Your task to perform on an android device: toggle show notifications on the lock screen Image 0: 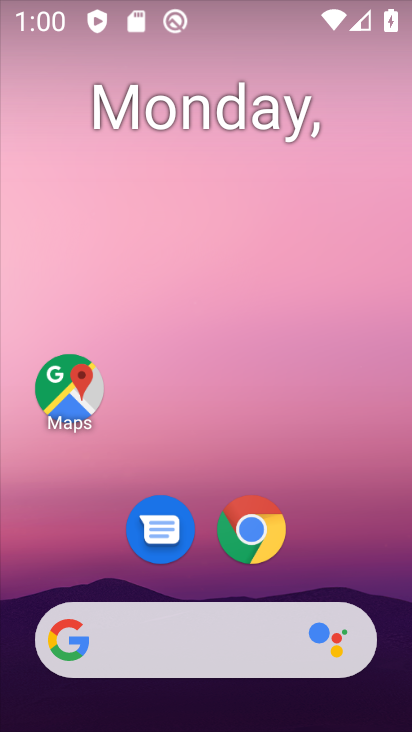
Step 0: drag from (355, 516) to (370, 84)
Your task to perform on an android device: toggle show notifications on the lock screen Image 1: 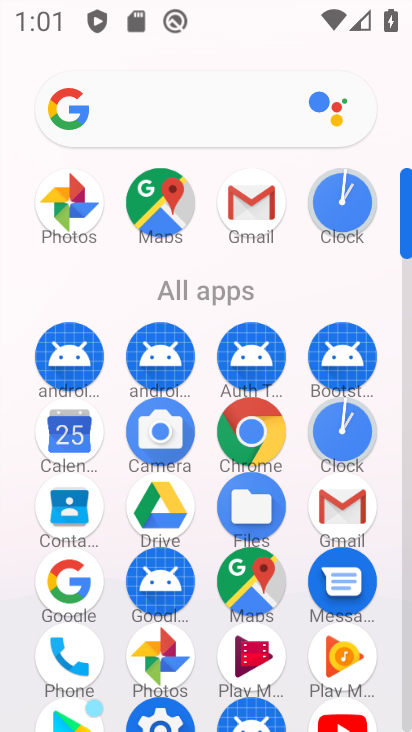
Step 1: drag from (385, 548) to (389, 130)
Your task to perform on an android device: toggle show notifications on the lock screen Image 2: 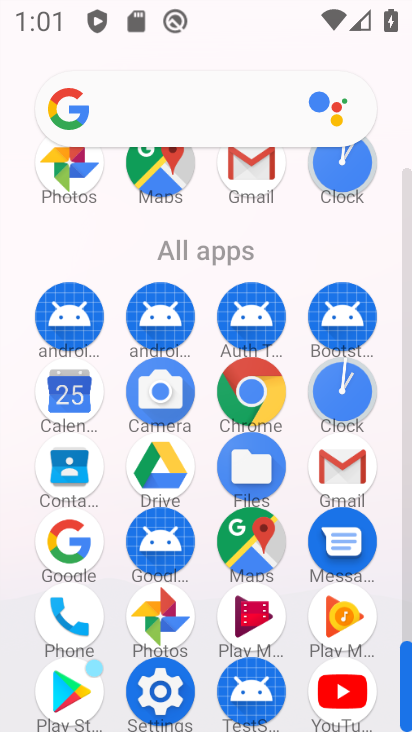
Step 2: click (168, 681)
Your task to perform on an android device: toggle show notifications on the lock screen Image 3: 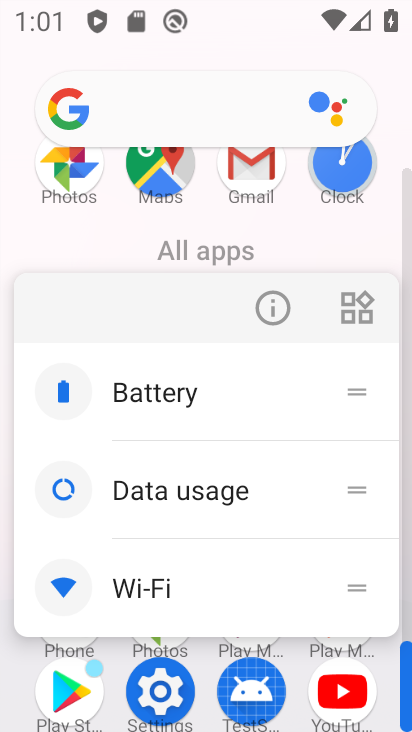
Step 3: click (169, 676)
Your task to perform on an android device: toggle show notifications on the lock screen Image 4: 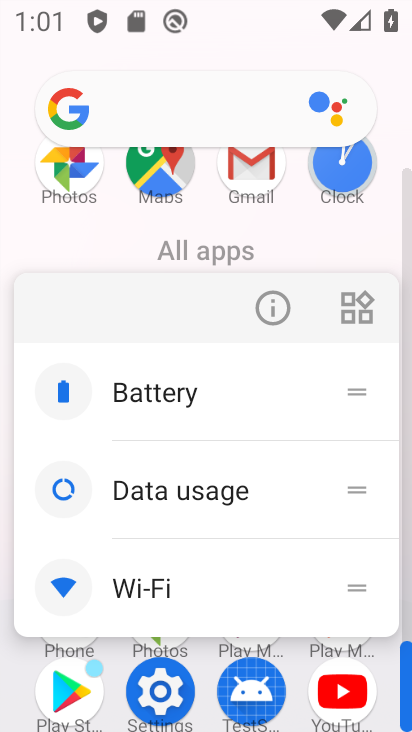
Step 4: click (173, 687)
Your task to perform on an android device: toggle show notifications on the lock screen Image 5: 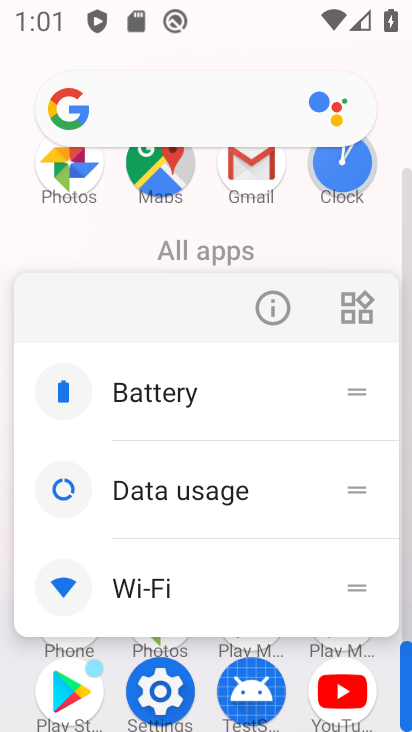
Step 5: click (173, 685)
Your task to perform on an android device: toggle show notifications on the lock screen Image 6: 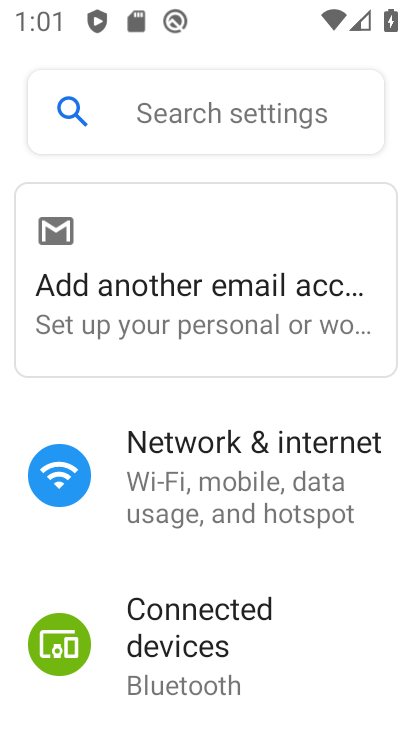
Step 6: drag from (194, 584) to (195, 307)
Your task to perform on an android device: toggle show notifications on the lock screen Image 7: 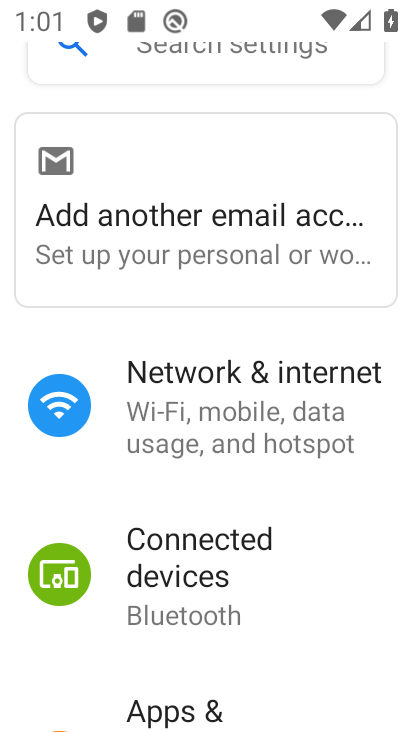
Step 7: drag from (228, 563) to (252, 284)
Your task to perform on an android device: toggle show notifications on the lock screen Image 8: 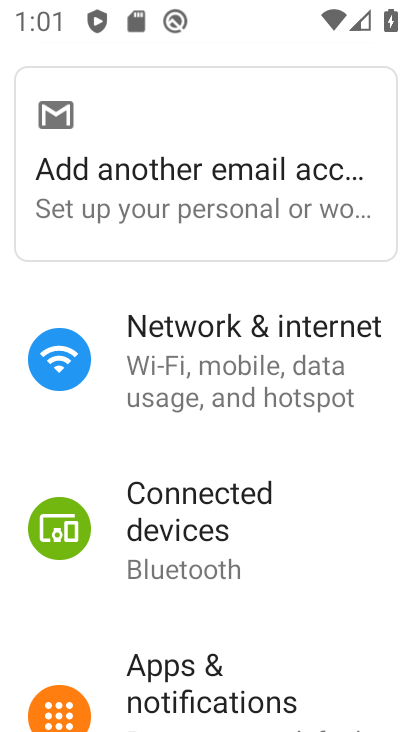
Step 8: drag from (229, 598) to (228, 235)
Your task to perform on an android device: toggle show notifications on the lock screen Image 9: 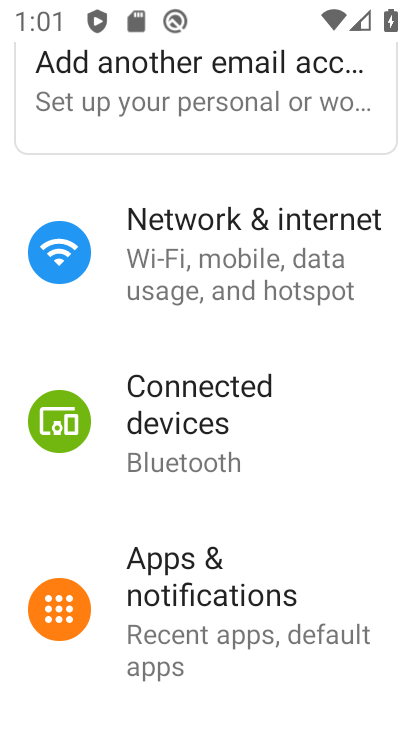
Step 9: click (210, 628)
Your task to perform on an android device: toggle show notifications on the lock screen Image 10: 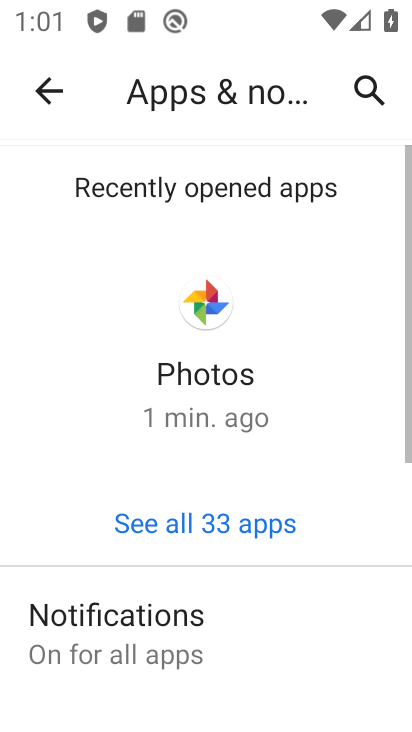
Step 10: drag from (158, 630) to (187, 295)
Your task to perform on an android device: toggle show notifications on the lock screen Image 11: 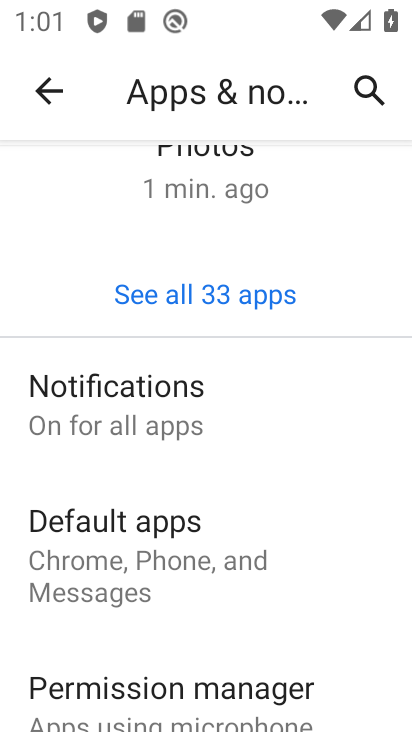
Step 11: click (125, 409)
Your task to perform on an android device: toggle show notifications on the lock screen Image 12: 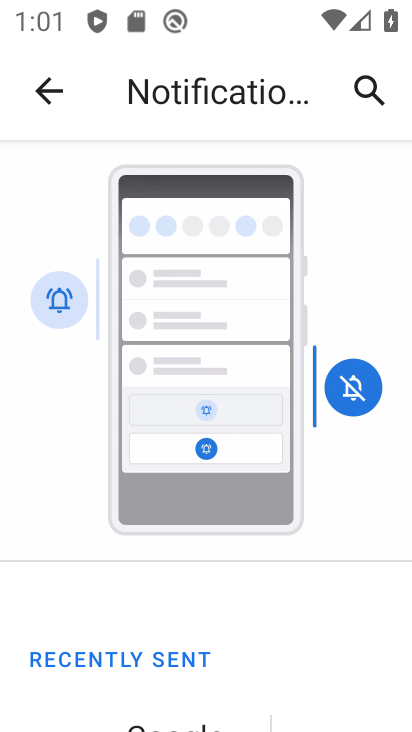
Step 12: drag from (194, 611) to (168, 254)
Your task to perform on an android device: toggle show notifications on the lock screen Image 13: 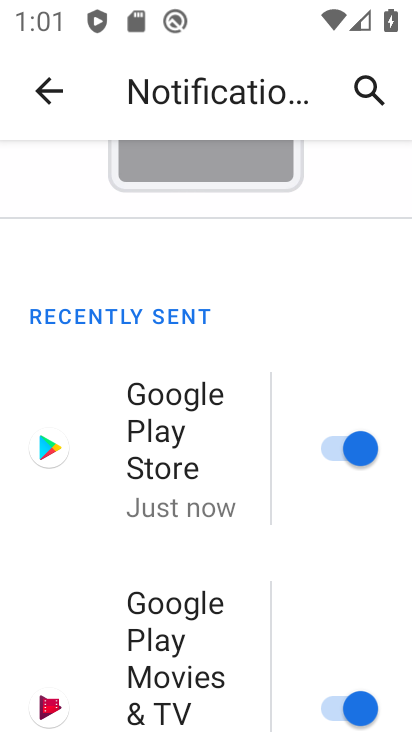
Step 13: drag from (138, 569) to (126, 189)
Your task to perform on an android device: toggle show notifications on the lock screen Image 14: 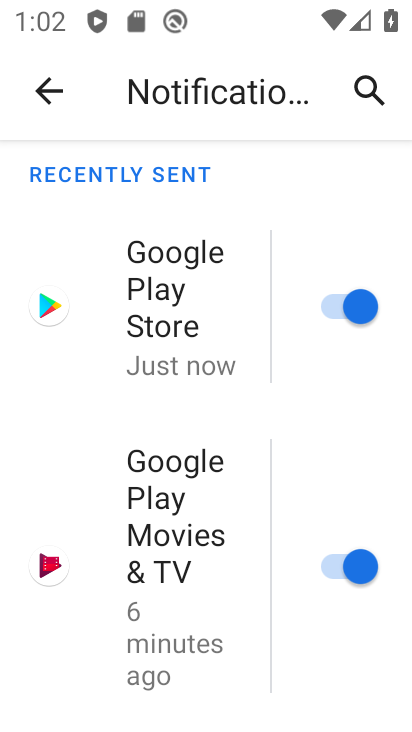
Step 14: drag from (171, 561) to (194, 149)
Your task to perform on an android device: toggle show notifications on the lock screen Image 15: 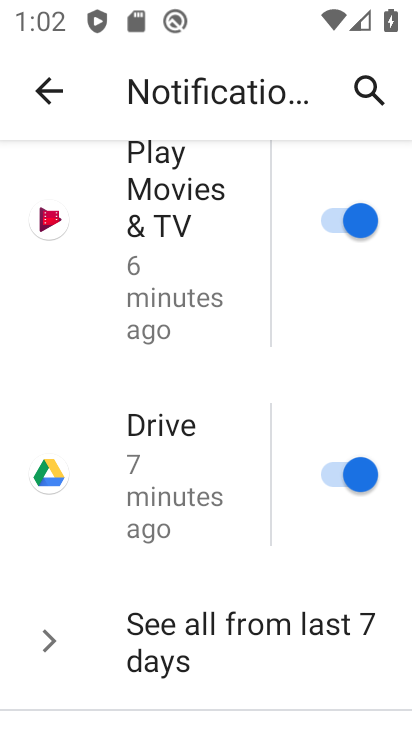
Step 15: drag from (176, 548) to (156, 189)
Your task to perform on an android device: toggle show notifications on the lock screen Image 16: 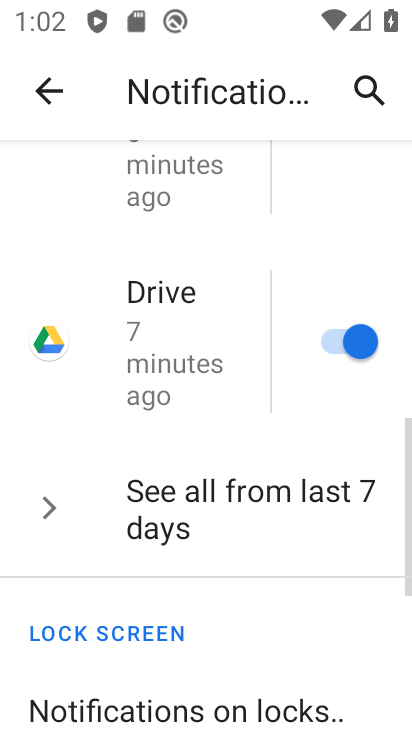
Step 16: drag from (167, 595) to (163, 169)
Your task to perform on an android device: toggle show notifications on the lock screen Image 17: 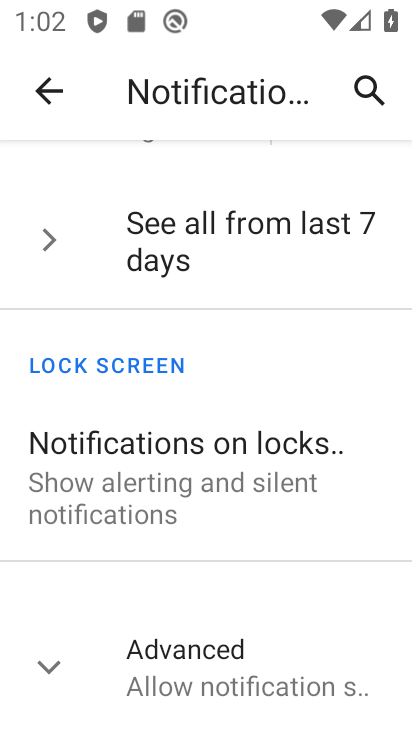
Step 17: drag from (170, 634) to (193, 262)
Your task to perform on an android device: toggle show notifications on the lock screen Image 18: 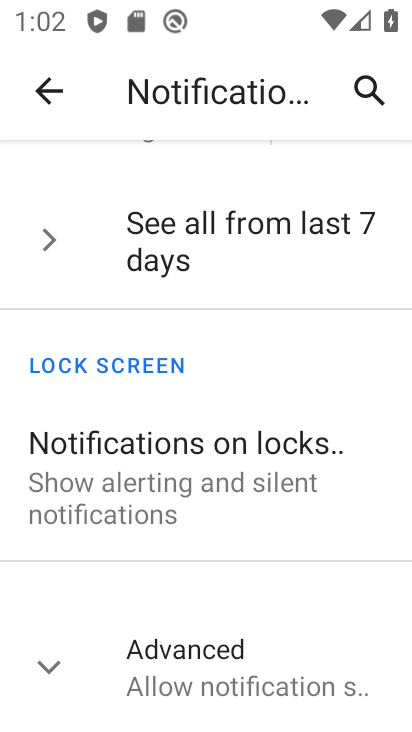
Step 18: click (186, 471)
Your task to perform on an android device: toggle show notifications on the lock screen Image 19: 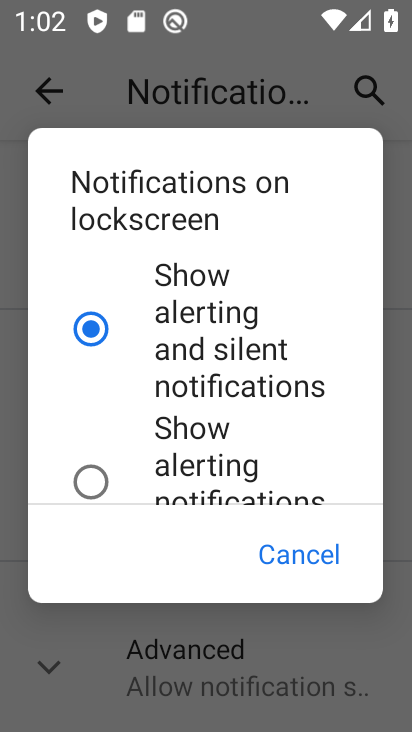
Step 19: drag from (161, 436) to (119, 139)
Your task to perform on an android device: toggle show notifications on the lock screen Image 20: 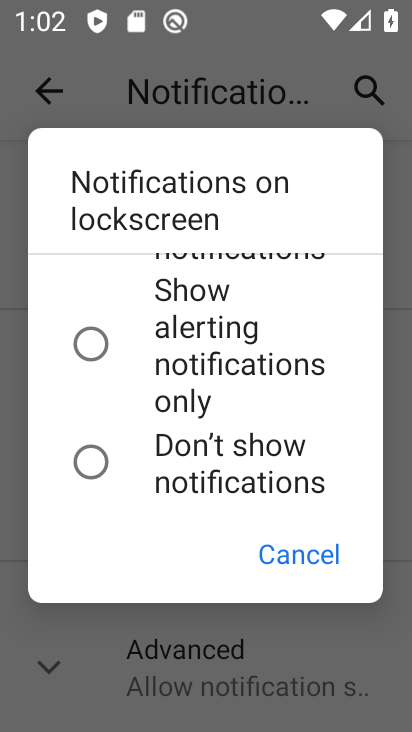
Step 20: click (94, 349)
Your task to perform on an android device: toggle show notifications on the lock screen Image 21: 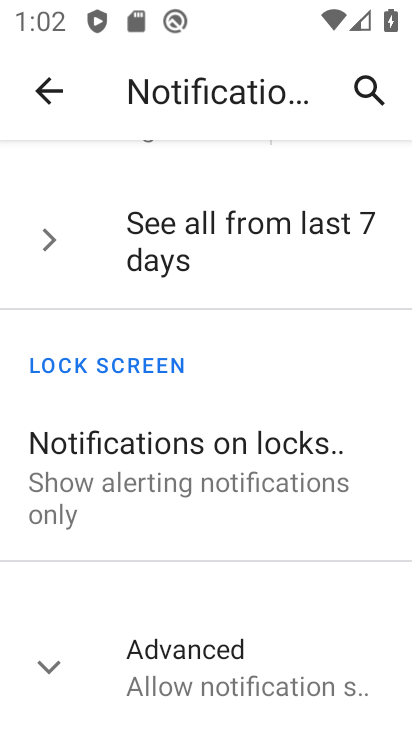
Step 21: task complete